Your task to perform on an android device: find which apps use the phone's location Image 0: 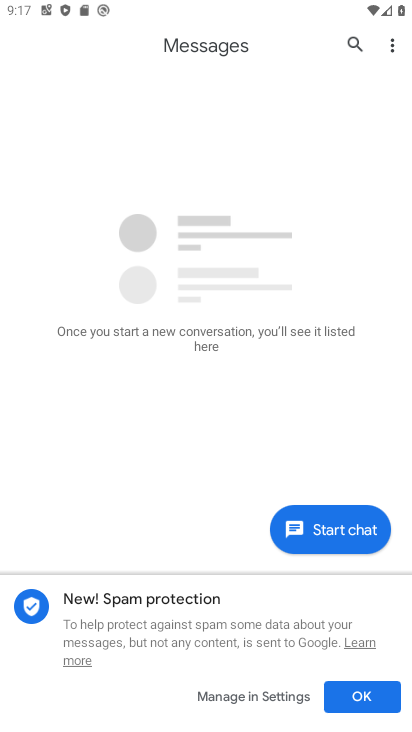
Step 0: press home button
Your task to perform on an android device: find which apps use the phone's location Image 1: 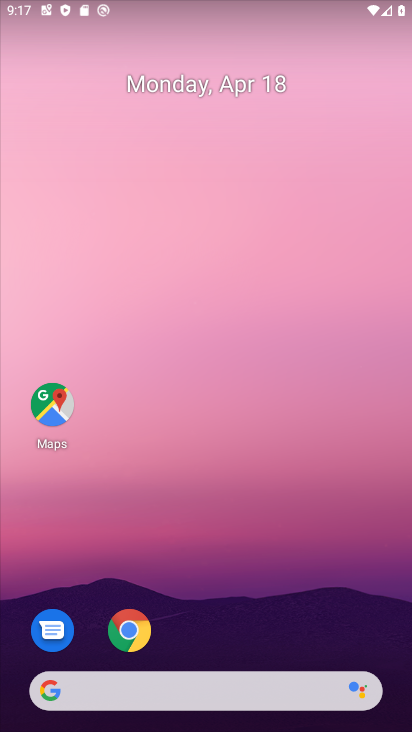
Step 1: drag from (278, 521) to (274, 110)
Your task to perform on an android device: find which apps use the phone's location Image 2: 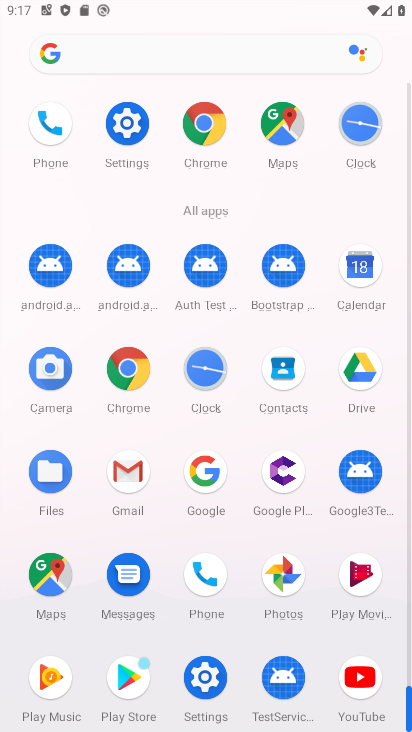
Step 2: click (132, 118)
Your task to perform on an android device: find which apps use the phone's location Image 3: 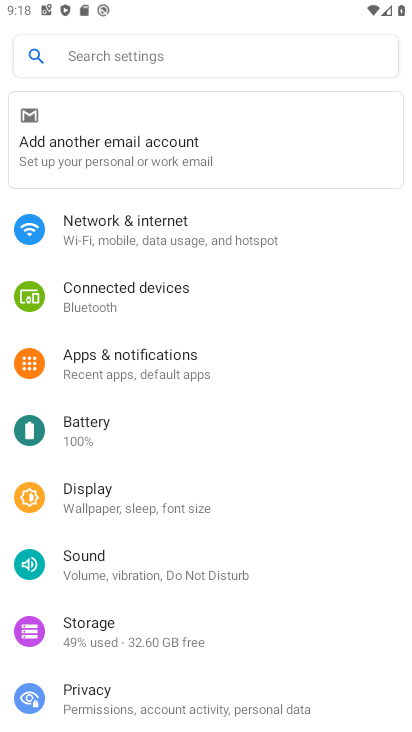
Step 3: drag from (278, 617) to (314, 205)
Your task to perform on an android device: find which apps use the phone's location Image 4: 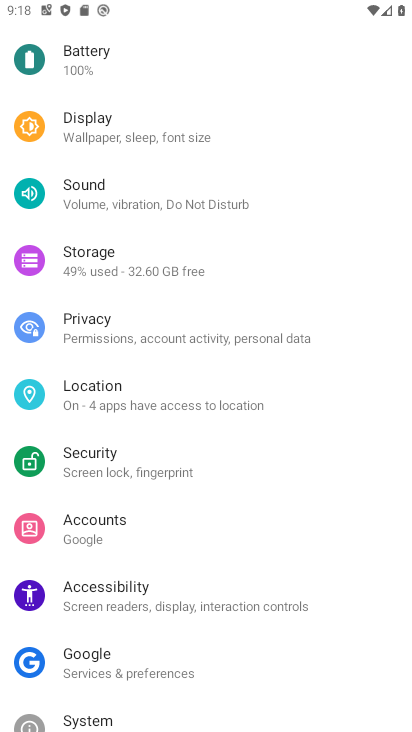
Step 4: click (227, 389)
Your task to perform on an android device: find which apps use the phone's location Image 5: 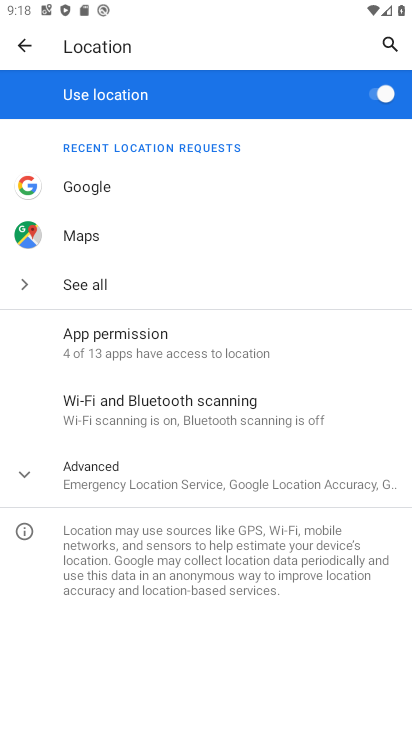
Step 5: click (177, 343)
Your task to perform on an android device: find which apps use the phone's location Image 6: 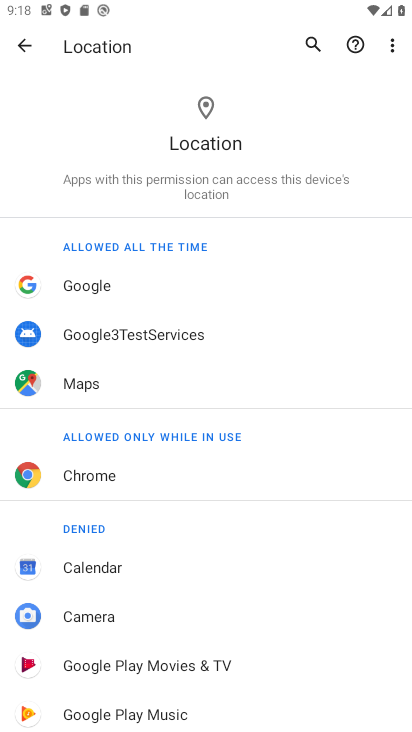
Step 6: task complete